Your task to perform on an android device: Go to Wikipedia Image 0: 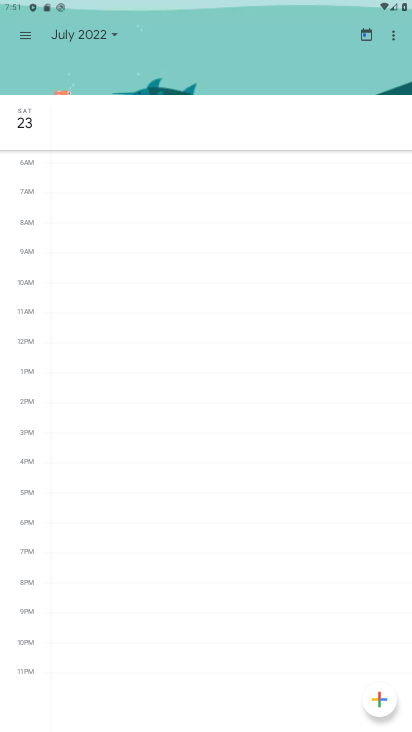
Step 0: press home button
Your task to perform on an android device: Go to Wikipedia Image 1: 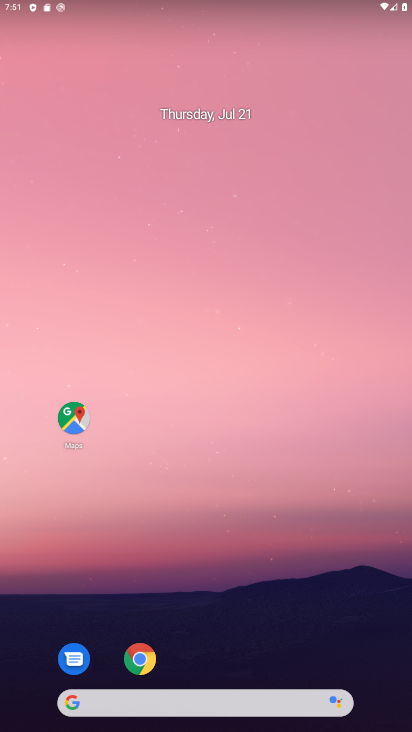
Step 1: drag from (319, 664) to (253, 210)
Your task to perform on an android device: Go to Wikipedia Image 2: 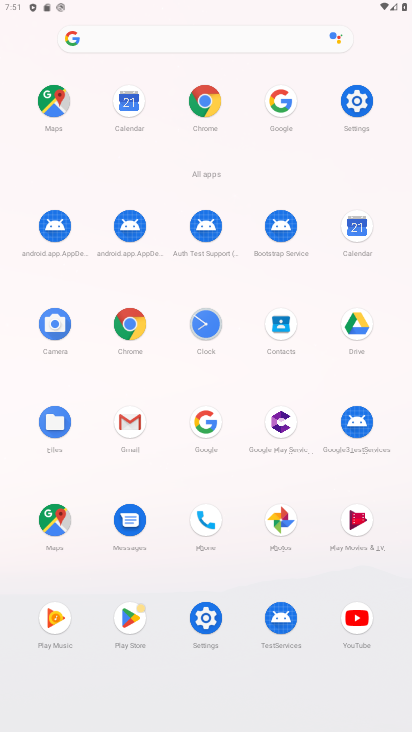
Step 2: click (196, 108)
Your task to perform on an android device: Go to Wikipedia Image 3: 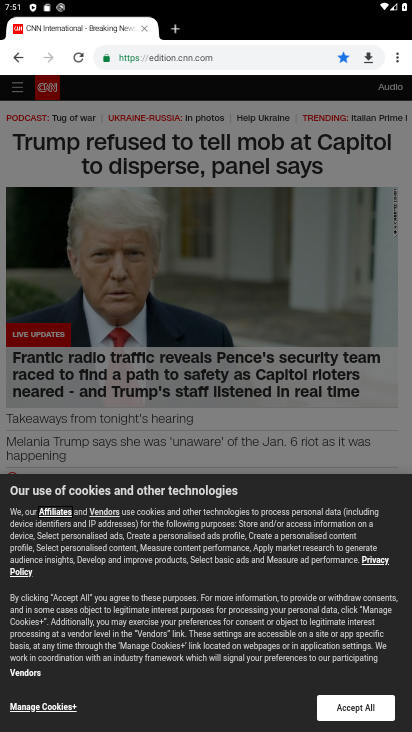
Step 3: click (176, 29)
Your task to perform on an android device: Go to Wikipedia Image 4: 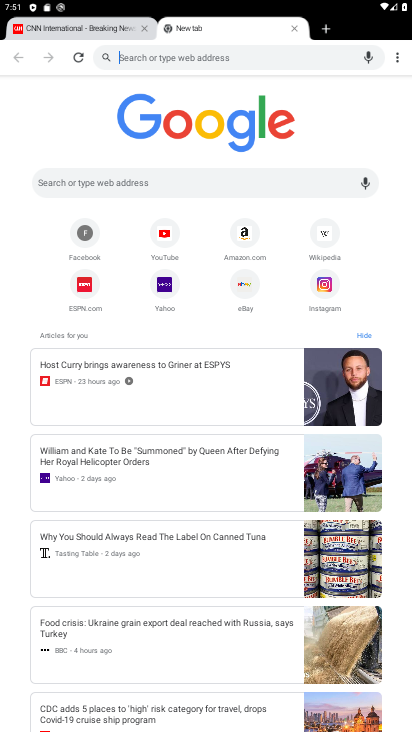
Step 4: click (330, 241)
Your task to perform on an android device: Go to Wikipedia Image 5: 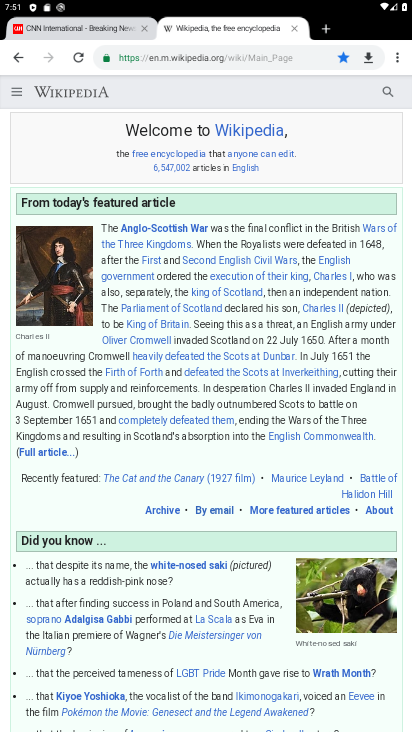
Step 5: task complete